Your task to perform on an android device: Open Maps and search for coffee Image 0: 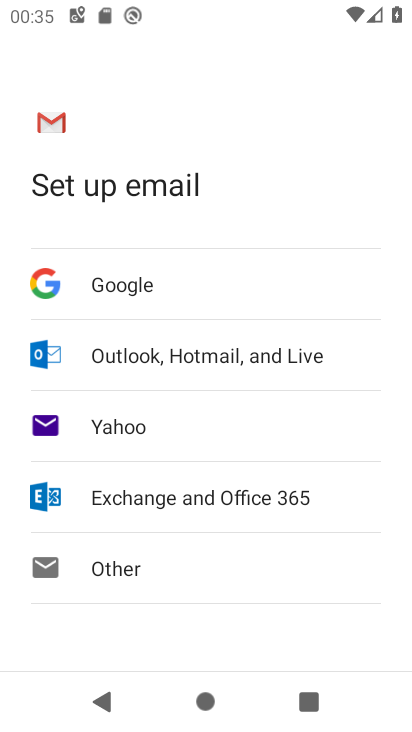
Step 0: press home button
Your task to perform on an android device: Open Maps and search for coffee Image 1: 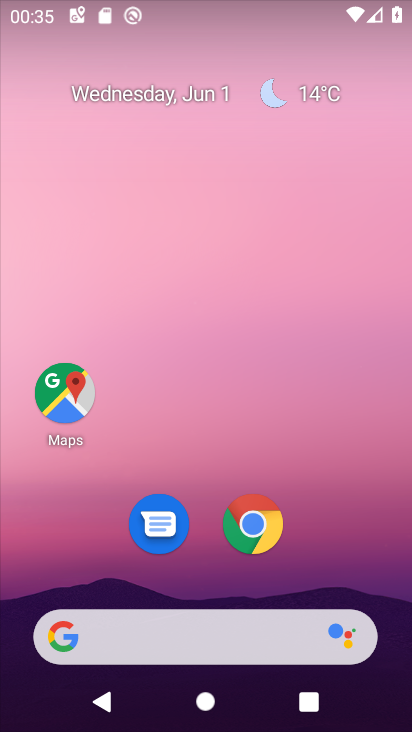
Step 1: click (66, 392)
Your task to perform on an android device: Open Maps and search for coffee Image 2: 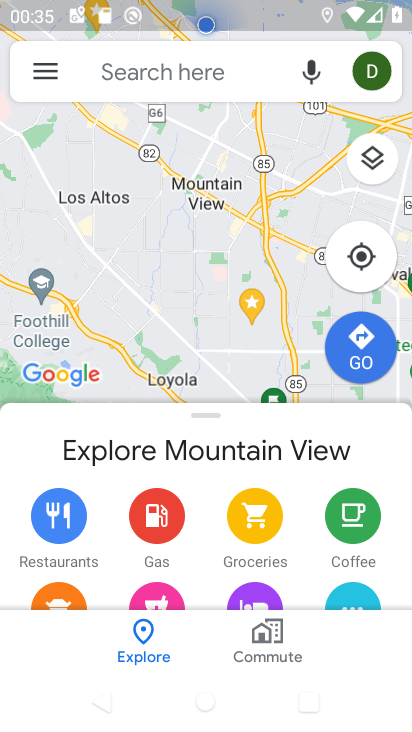
Step 2: click (219, 66)
Your task to perform on an android device: Open Maps and search for coffee Image 3: 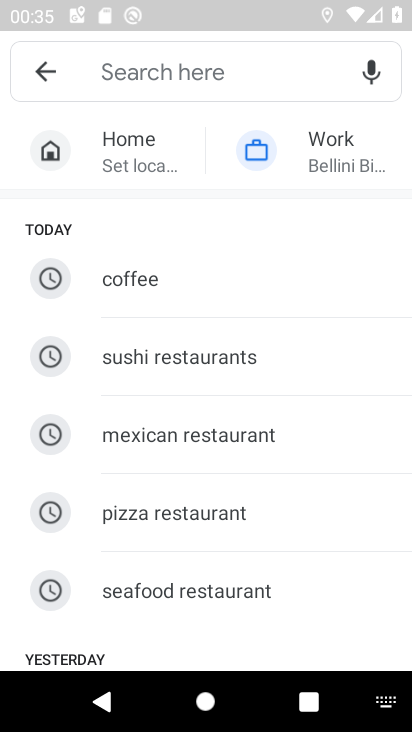
Step 3: click (149, 269)
Your task to perform on an android device: Open Maps and search for coffee Image 4: 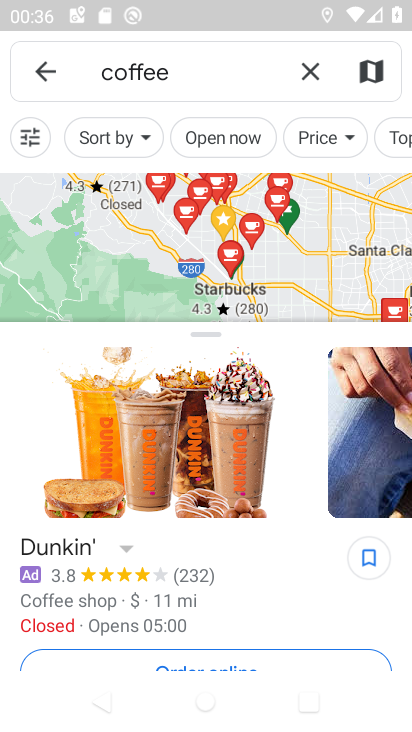
Step 4: task complete